Your task to perform on an android device: Go to CNN.com Image 0: 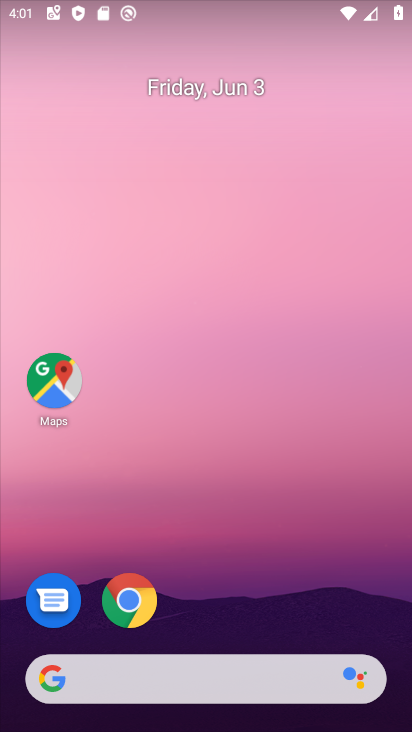
Step 0: click (185, 674)
Your task to perform on an android device: Go to CNN.com Image 1: 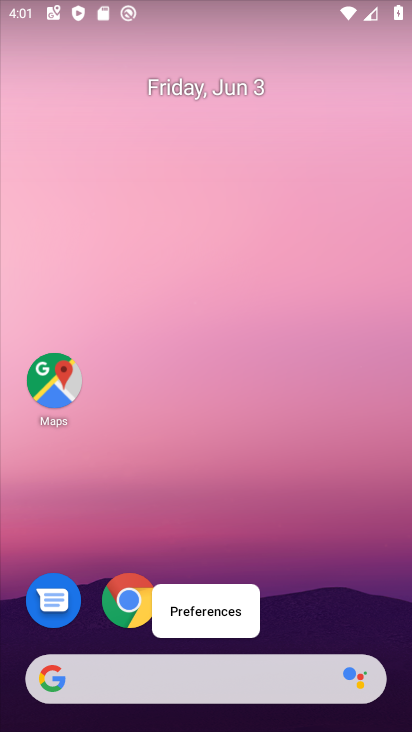
Step 1: click (179, 678)
Your task to perform on an android device: Go to CNN.com Image 2: 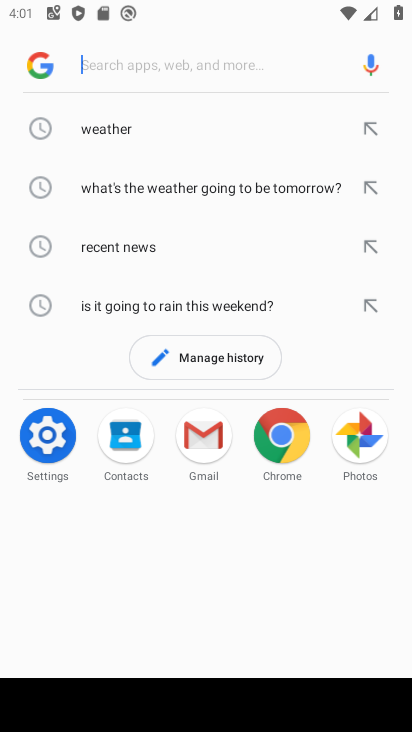
Step 2: type "CNN.com"
Your task to perform on an android device: Go to CNN.com Image 3: 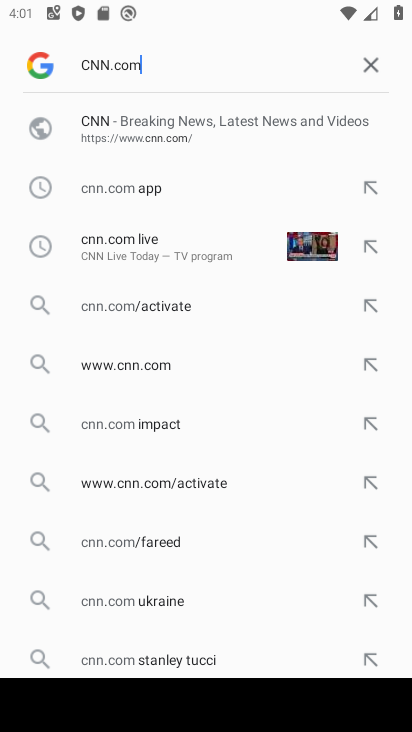
Step 3: click (143, 118)
Your task to perform on an android device: Go to CNN.com Image 4: 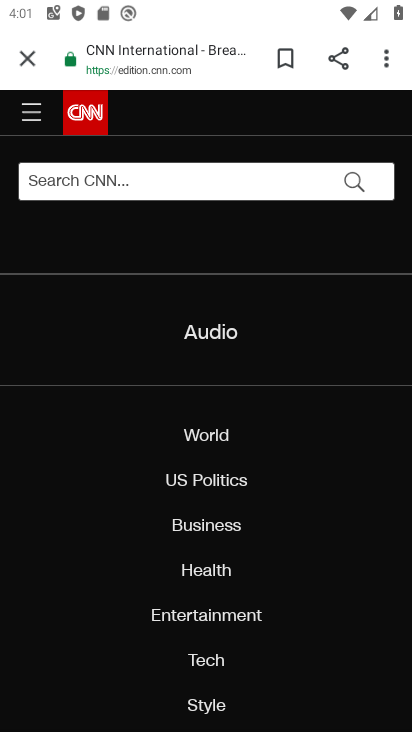
Step 4: task complete